Your task to perform on an android device: turn off location Image 0: 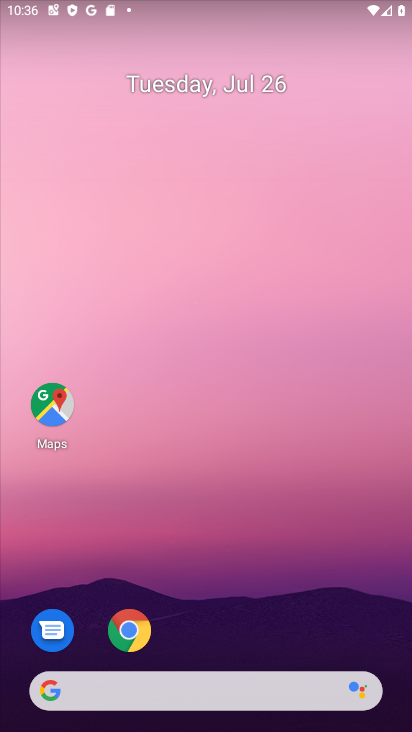
Step 0: drag from (175, 701) to (269, 51)
Your task to perform on an android device: turn off location Image 1: 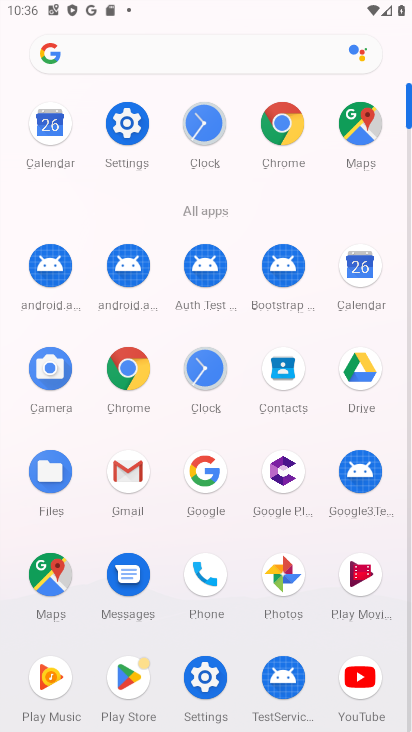
Step 1: click (120, 124)
Your task to perform on an android device: turn off location Image 2: 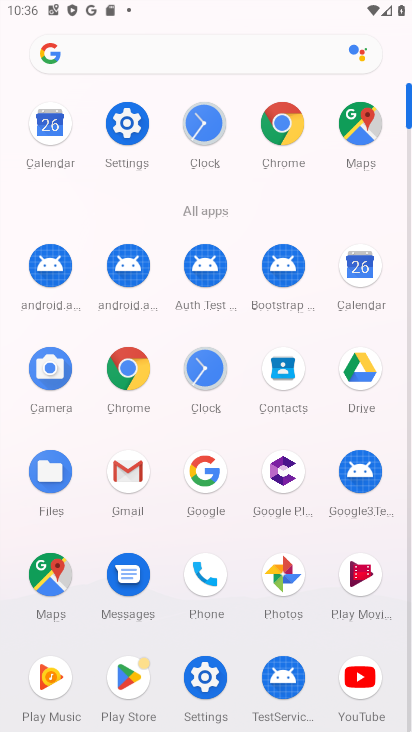
Step 2: click (120, 124)
Your task to perform on an android device: turn off location Image 3: 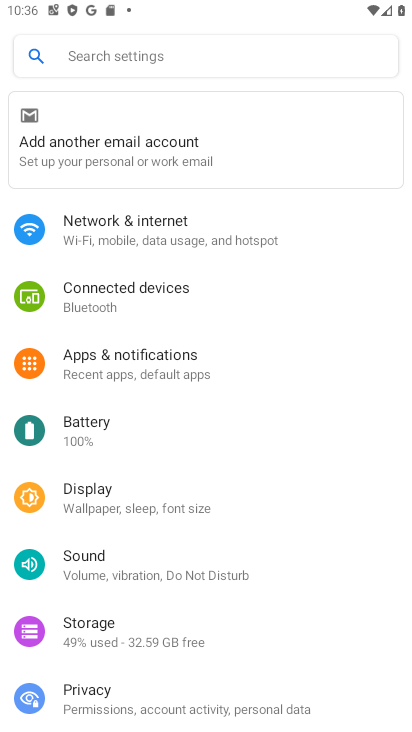
Step 3: drag from (261, 507) to (276, 0)
Your task to perform on an android device: turn off location Image 4: 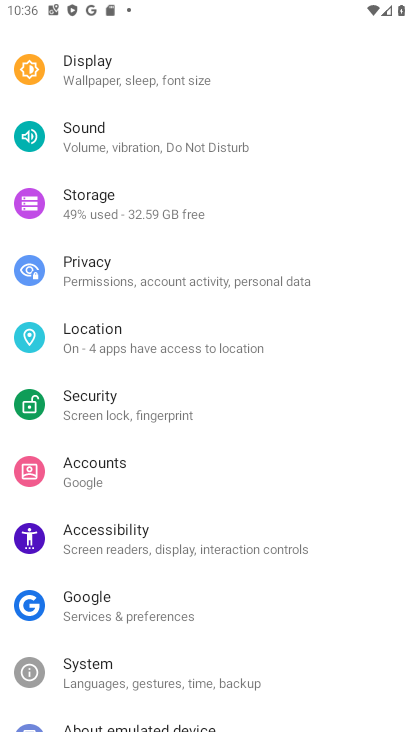
Step 4: click (139, 328)
Your task to perform on an android device: turn off location Image 5: 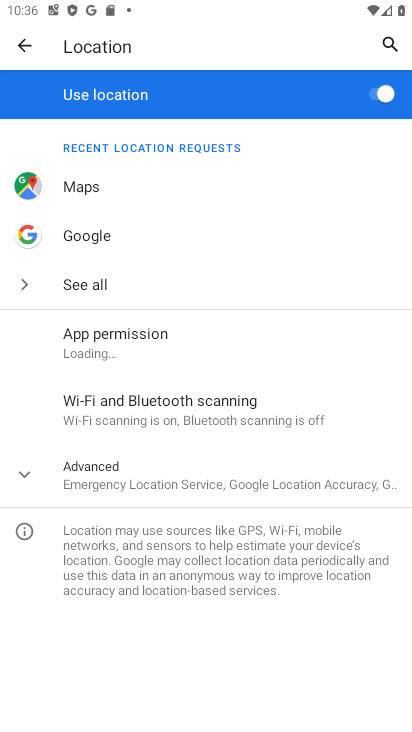
Step 5: click (380, 90)
Your task to perform on an android device: turn off location Image 6: 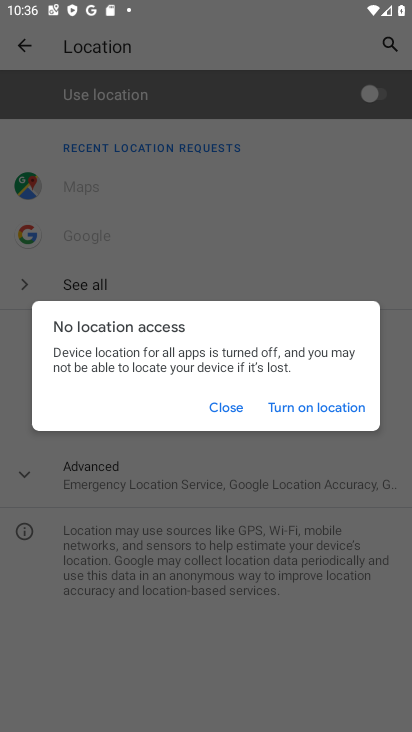
Step 6: click (230, 412)
Your task to perform on an android device: turn off location Image 7: 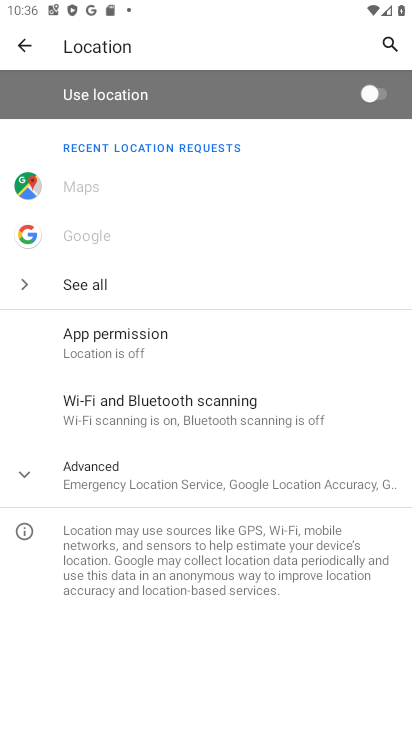
Step 7: task complete